Your task to perform on an android device: empty trash in google photos Image 0: 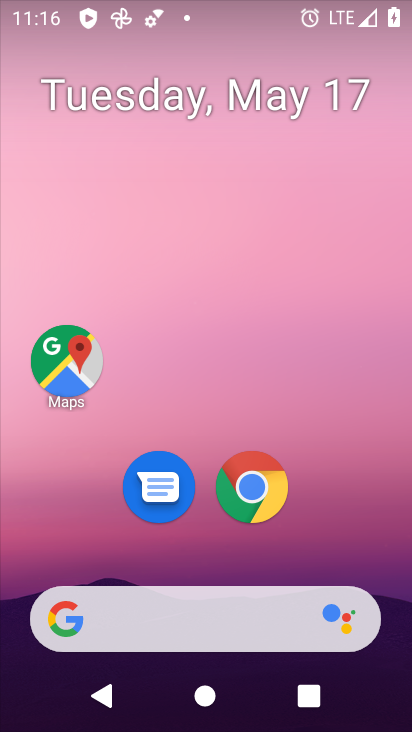
Step 0: press home button
Your task to perform on an android device: empty trash in google photos Image 1: 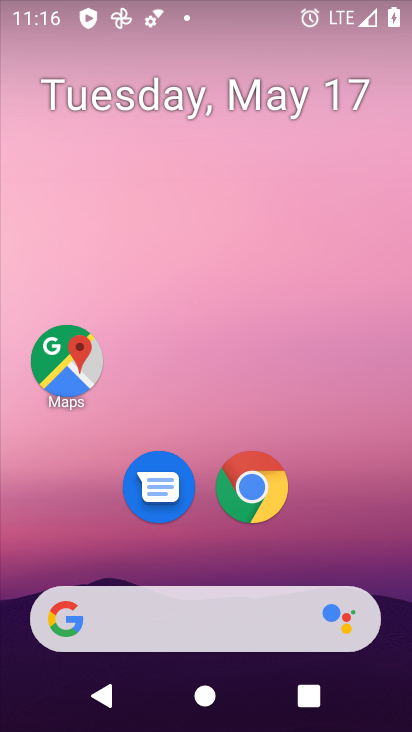
Step 1: drag from (357, 515) to (292, 132)
Your task to perform on an android device: empty trash in google photos Image 2: 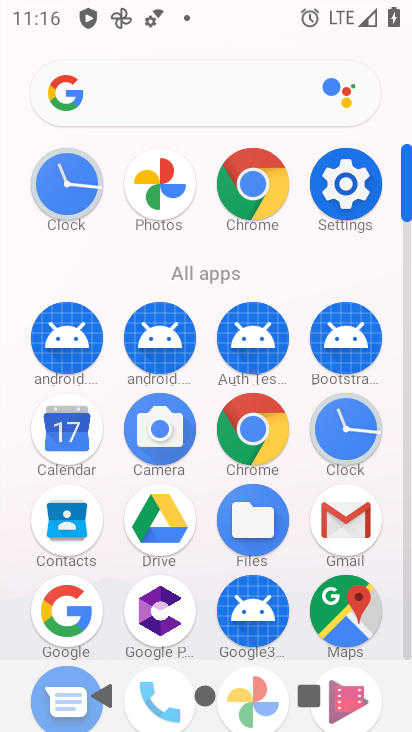
Step 2: click (159, 152)
Your task to perform on an android device: empty trash in google photos Image 3: 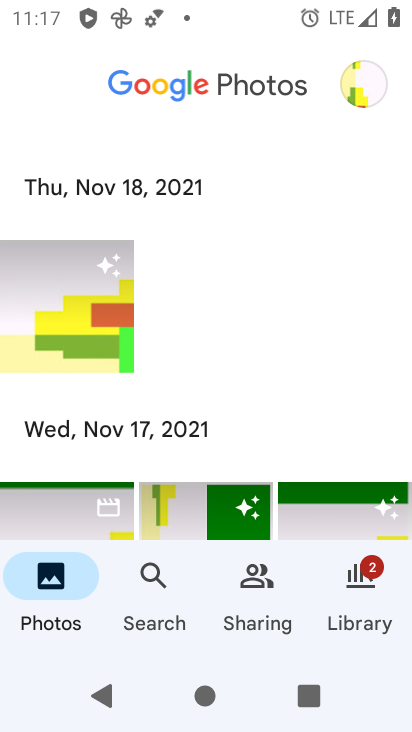
Step 3: click (358, 592)
Your task to perform on an android device: empty trash in google photos Image 4: 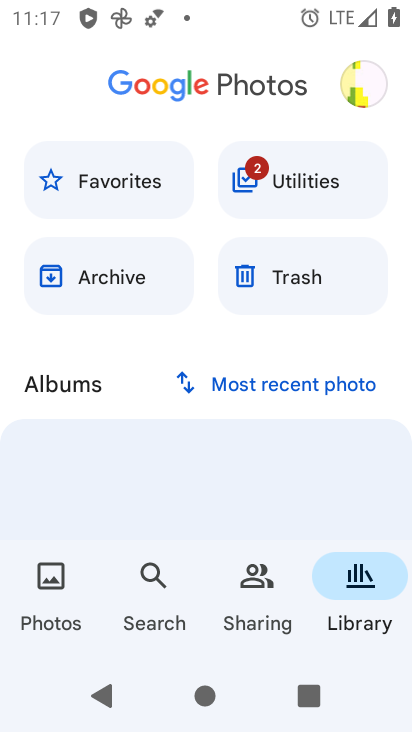
Step 4: click (292, 268)
Your task to perform on an android device: empty trash in google photos Image 5: 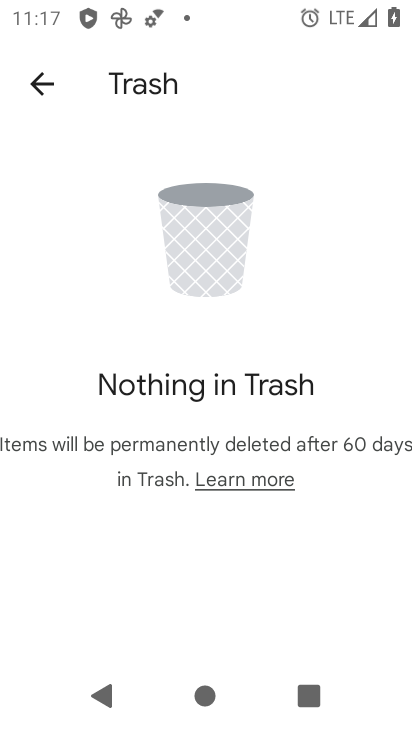
Step 5: task complete